Your task to perform on an android device: Search for sushi restaurants on Maps Image 0: 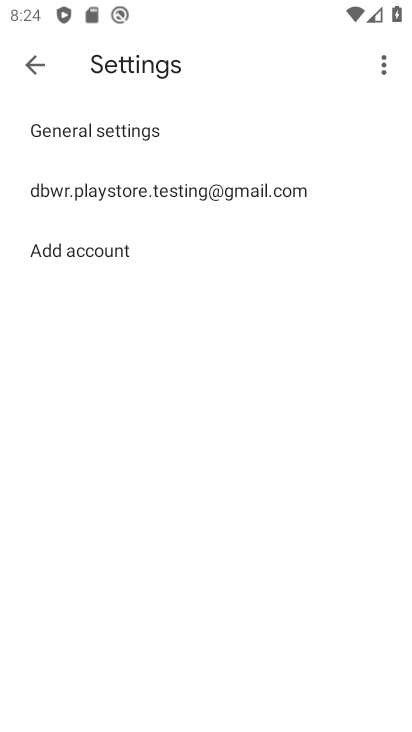
Step 0: press home button
Your task to perform on an android device: Search for sushi restaurants on Maps Image 1: 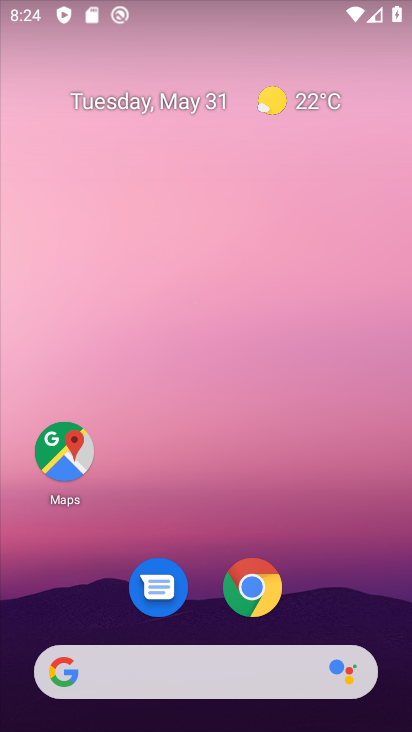
Step 1: drag from (199, 624) to (195, 64)
Your task to perform on an android device: Search for sushi restaurants on Maps Image 2: 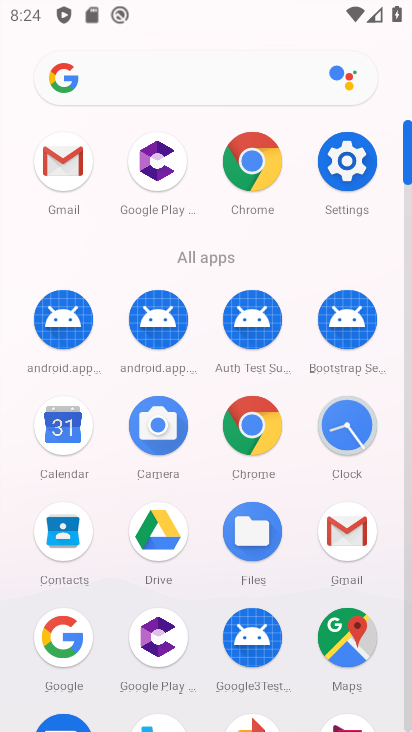
Step 2: click (350, 653)
Your task to perform on an android device: Search for sushi restaurants on Maps Image 3: 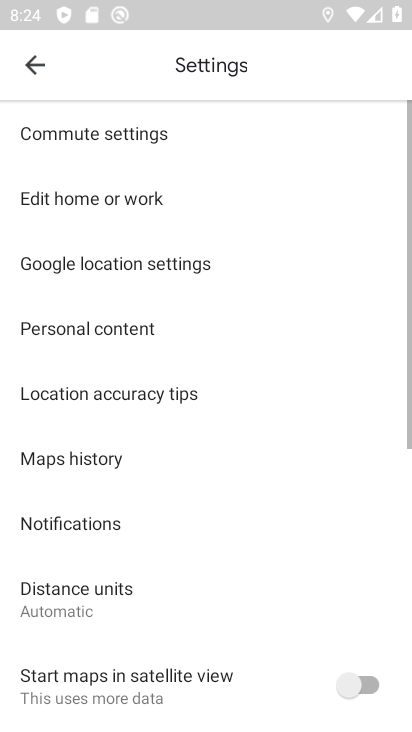
Step 3: click (36, 73)
Your task to perform on an android device: Search for sushi restaurants on Maps Image 4: 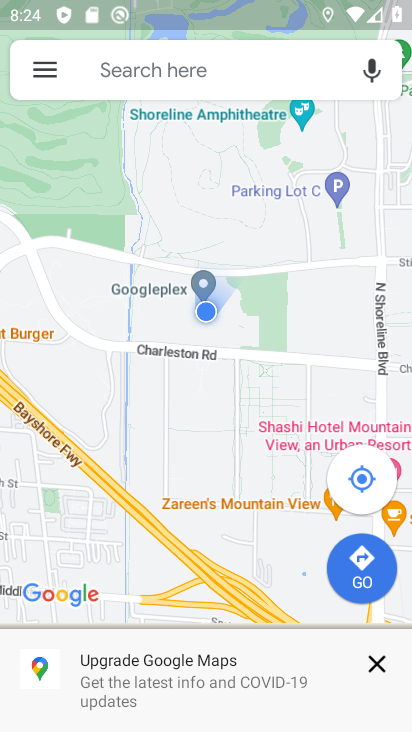
Step 4: click (205, 73)
Your task to perform on an android device: Search for sushi restaurants on Maps Image 5: 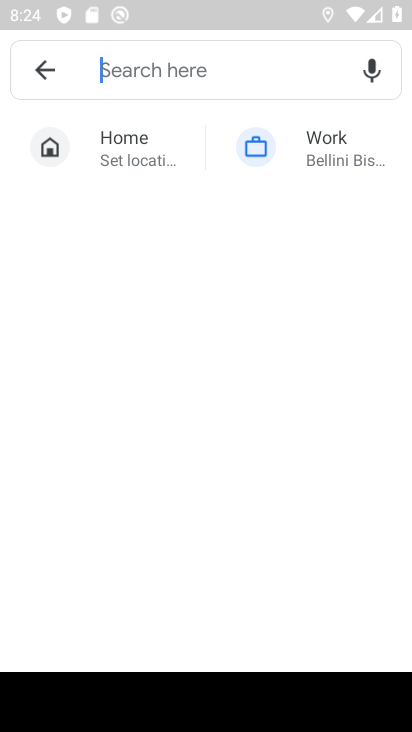
Step 5: type "sushi restaurant"
Your task to perform on an android device: Search for sushi restaurants on Maps Image 6: 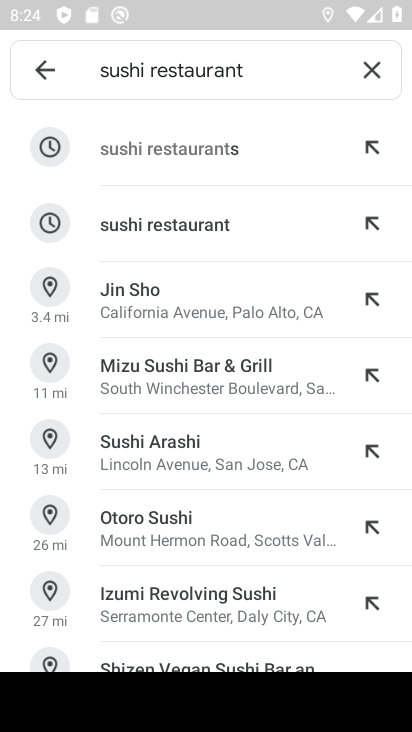
Step 6: click (237, 165)
Your task to perform on an android device: Search for sushi restaurants on Maps Image 7: 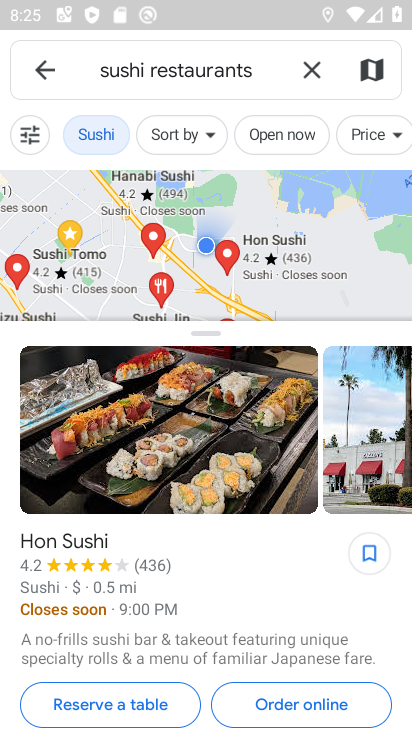
Step 7: task complete